Your task to perform on an android device: check android version Image 0: 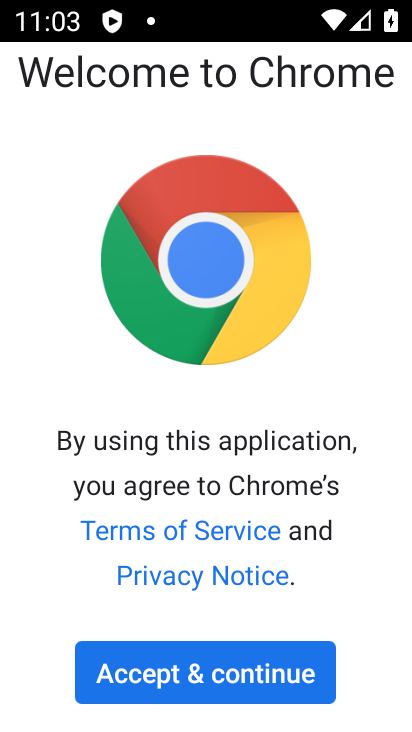
Step 0: press home button
Your task to perform on an android device: check android version Image 1: 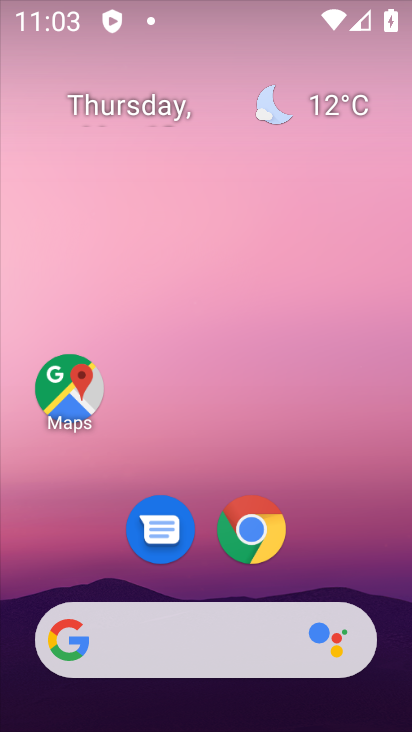
Step 1: drag from (279, 529) to (269, 210)
Your task to perform on an android device: check android version Image 2: 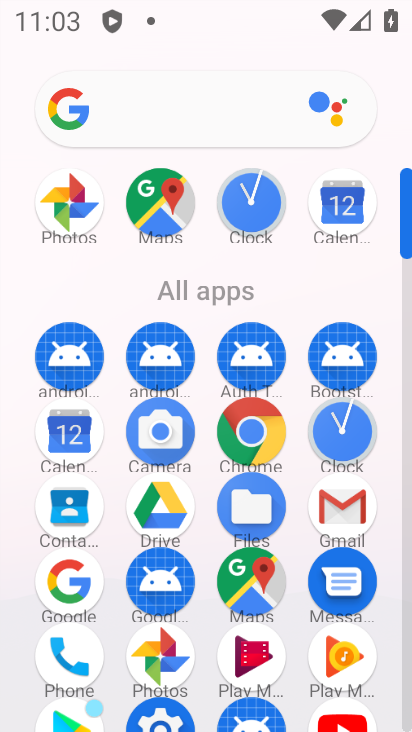
Step 2: drag from (204, 615) to (244, 348)
Your task to perform on an android device: check android version Image 3: 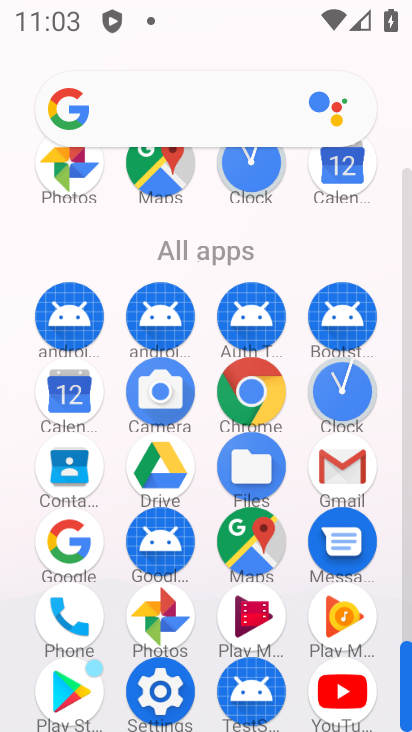
Step 3: click (157, 671)
Your task to perform on an android device: check android version Image 4: 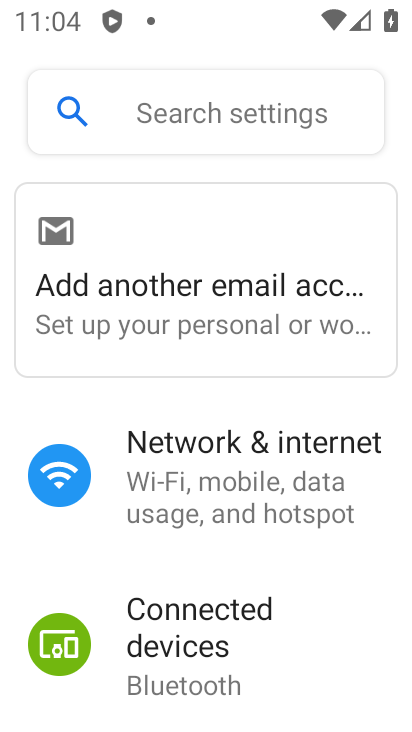
Step 4: drag from (202, 623) to (337, 182)
Your task to perform on an android device: check android version Image 5: 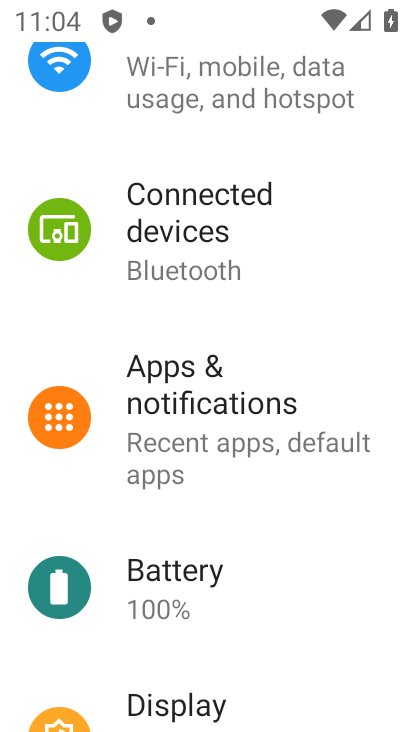
Step 5: drag from (153, 600) to (244, 177)
Your task to perform on an android device: check android version Image 6: 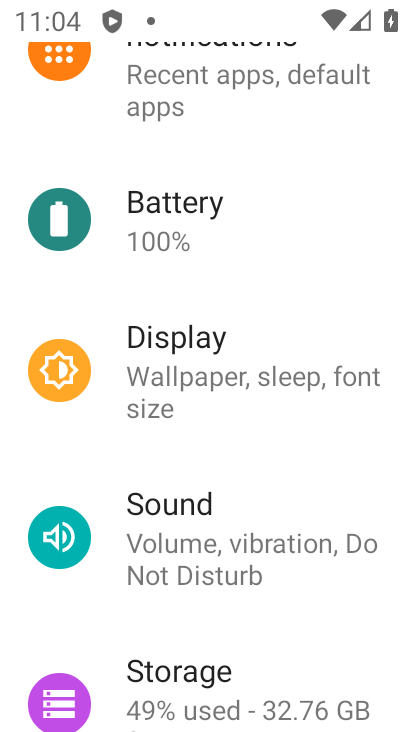
Step 6: drag from (158, 613) to (258, 210)
Your task to perform on an android device: check android version Image 7: 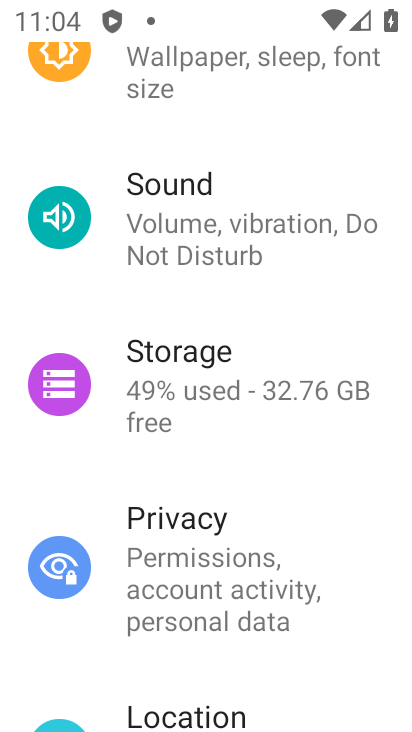
Step 7: drag from (145, 610) to (298, 175)
Your task to perform on an android device: check android version Image 8: 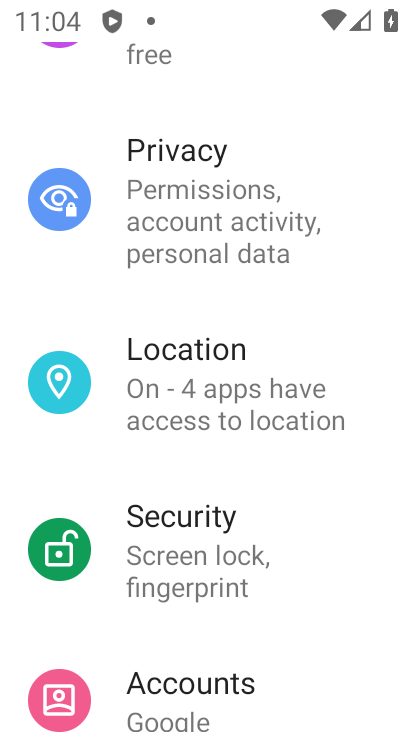
Step 8: drag from (139, 616) to (308, 143)
Your task to perform on an android device: check android version Image 9: 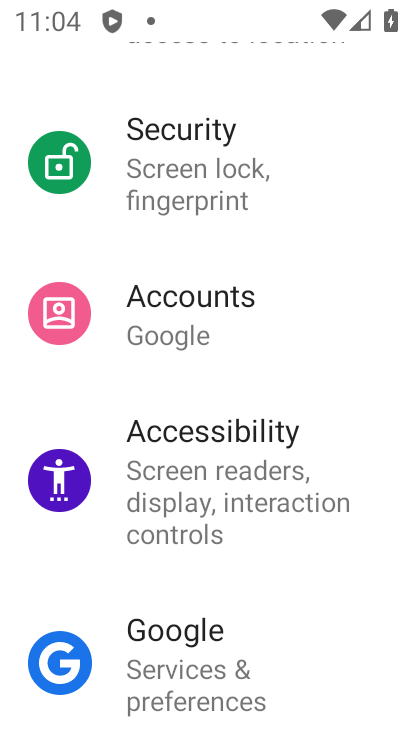
Step 9: drag from (158, 645) to (305, 151)
Your task to perform on an android device: check android version Image 10: 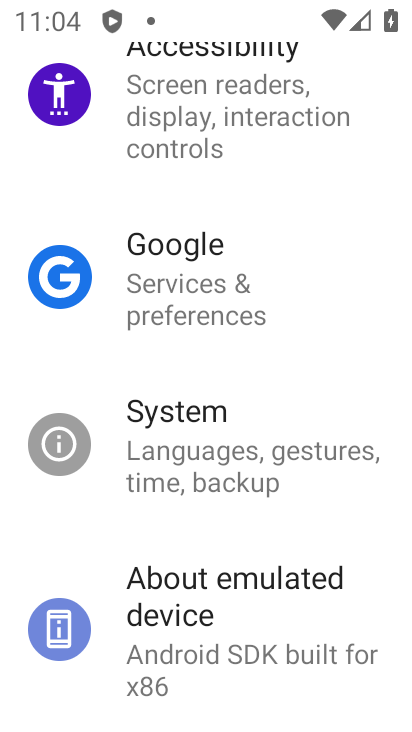
Step 10: click (153, 604)
Your task to perform on an android device: check android version Image 11: 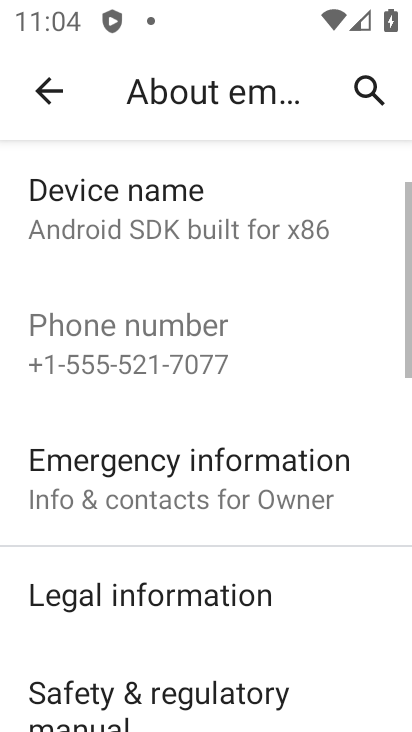
Step 11: task complete